Your task to perform on an android device: empty trash in google photos Image 0: 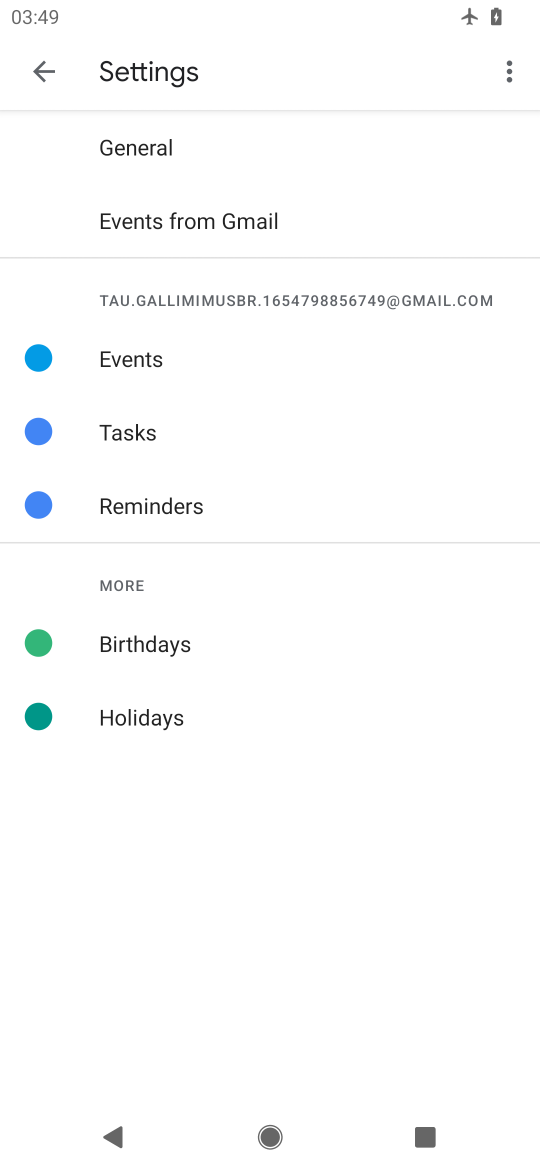
Step 0: press back button
Your task to perform on an android device: empty trash in google photos Image 1: 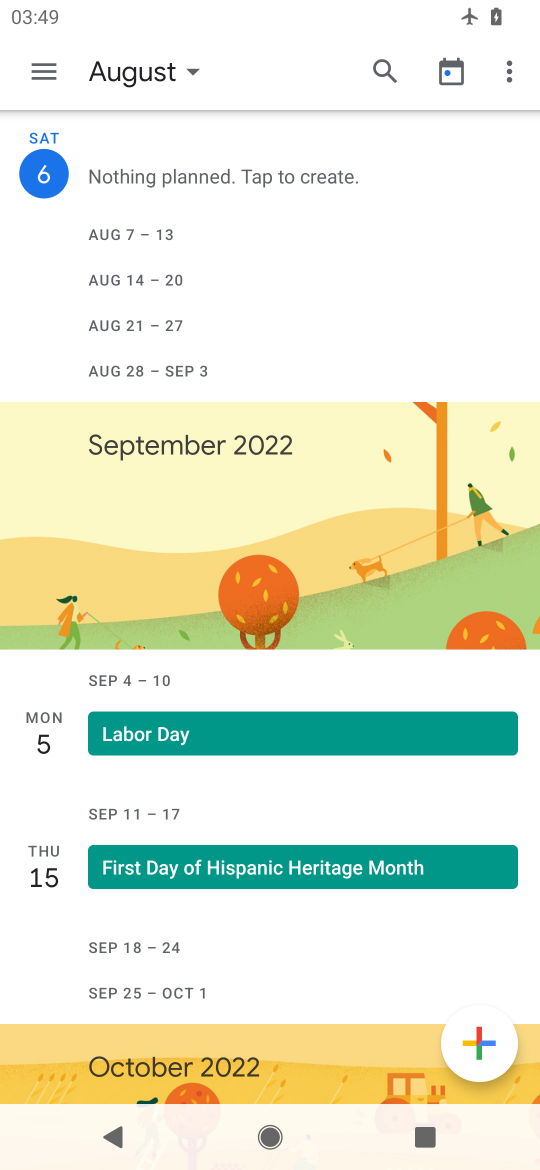
Step 1: press back button
Your task to perform on an android device: empty trash in google photos Image 2: 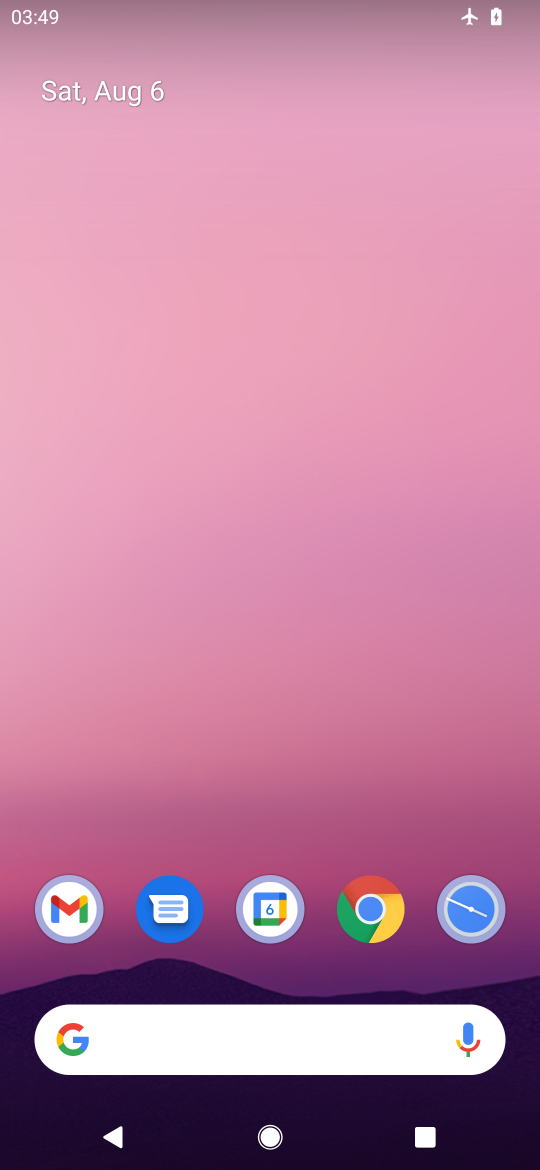
Step 2: drag from (275, 958) to (428, 22)
Your task to perform on an android device: empty trash in google photos Image 3: 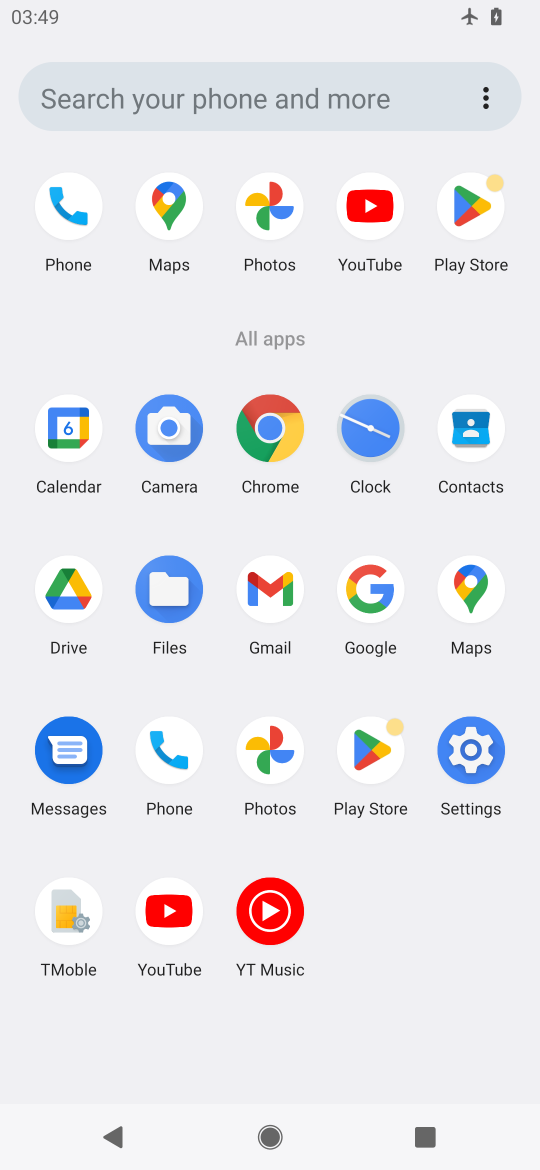
Step 3: click (272, 223)
Your task to perform on an android device: empty trash in google photos Image 4: 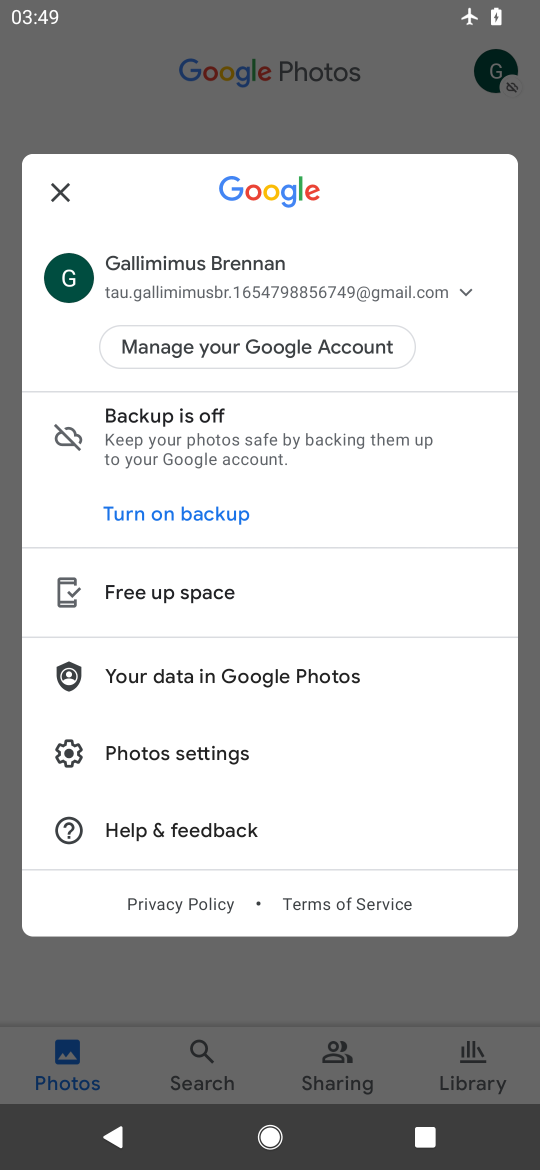
Step 4: click (57, 192)
Your task to perform on an android device: empty trash in google photos Image 5: 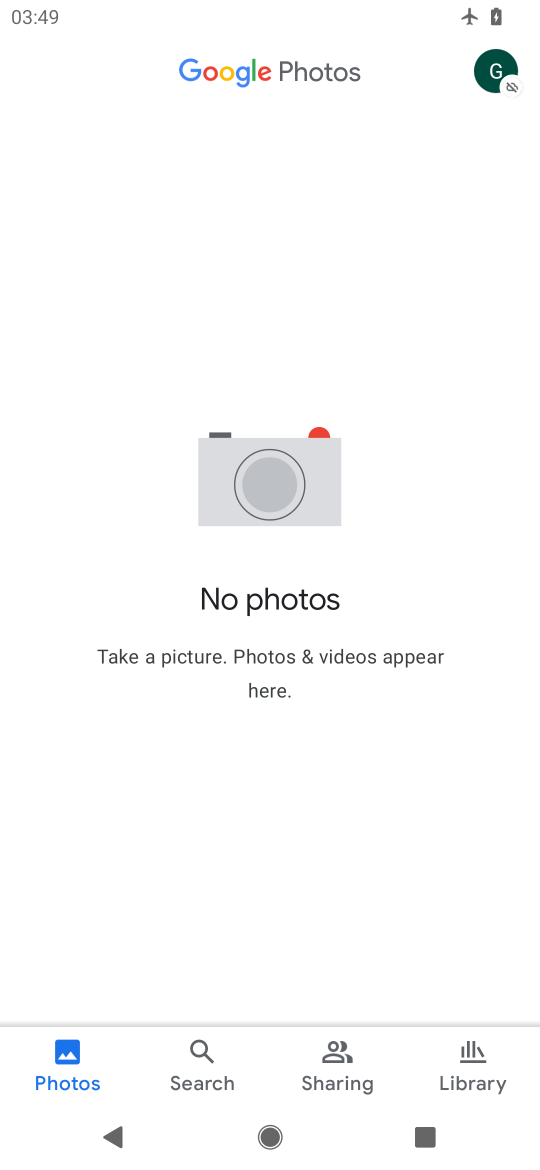
Step 5: click (494, 52)
Your task to perform on an android device: empty trash in google photos Image 6: 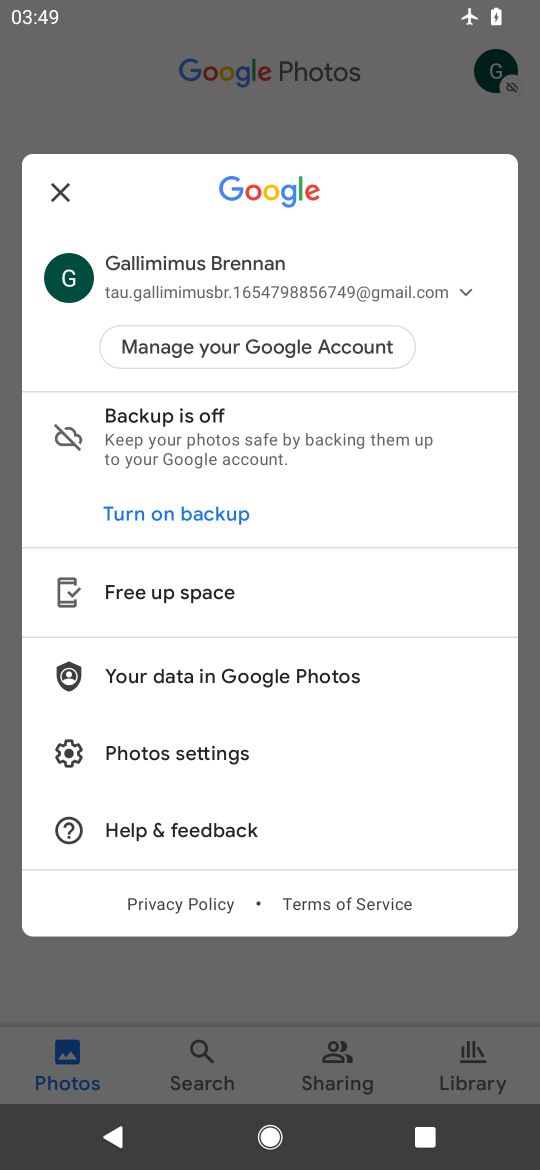
Step 6: task complete